Your task to perform on an android device: Open sound settings Image 0: 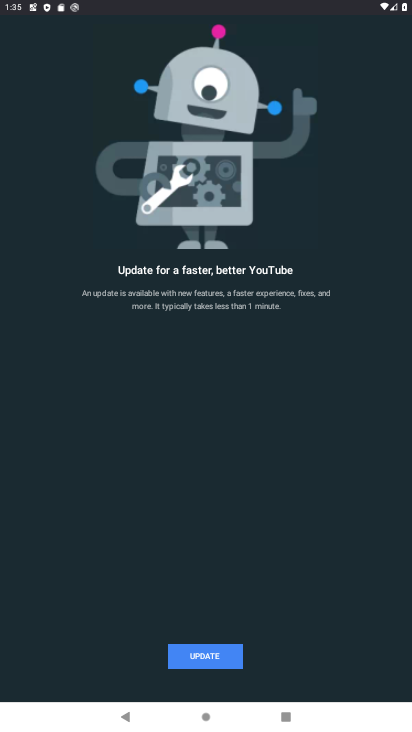
Step 0: press home button
Your task to perform on an android device: Open sound settings Image 1: 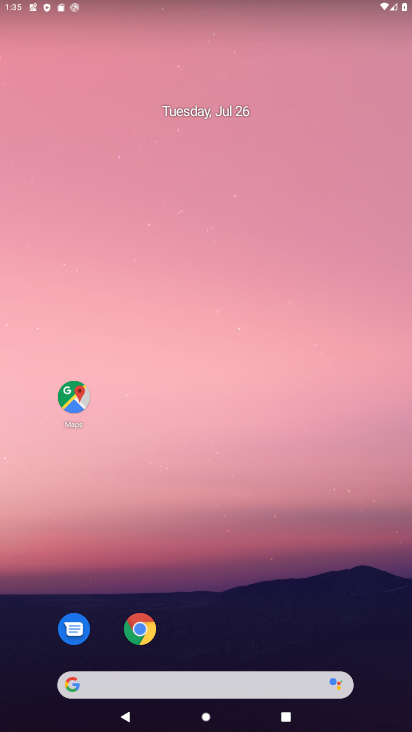
Step 1: drag from (287, 590) to (303, 144)
Your task to perform on an android device: Open sound settings Image 2: 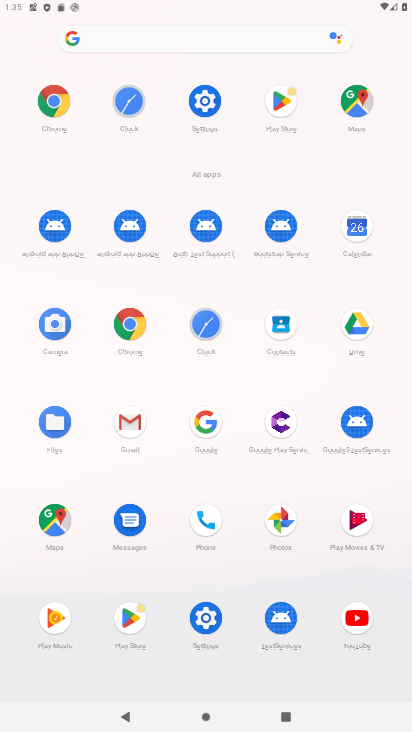
Step 2: click (211, 606)
Your task to perform on an android device: Open sound settings Image 3: 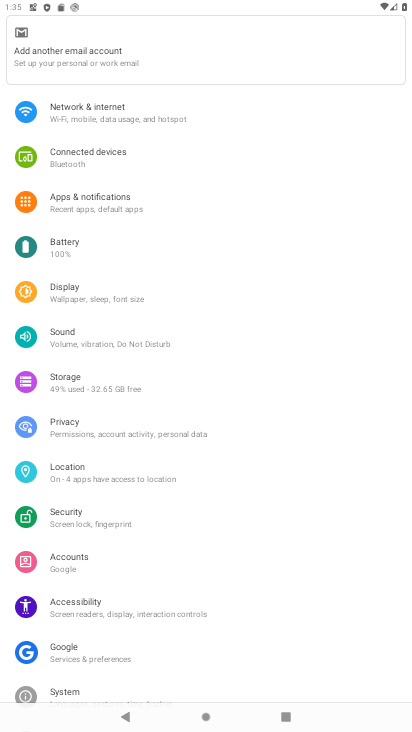
Step 3: click (72, 341)
Your task to perform on an android device: Open sound settings Image 4: 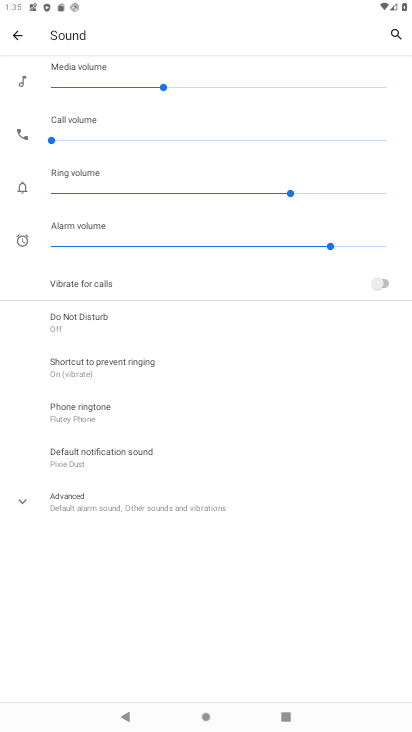
Step 4: task complete